Your task to perform on an android device: Go to internet settings Image 0: 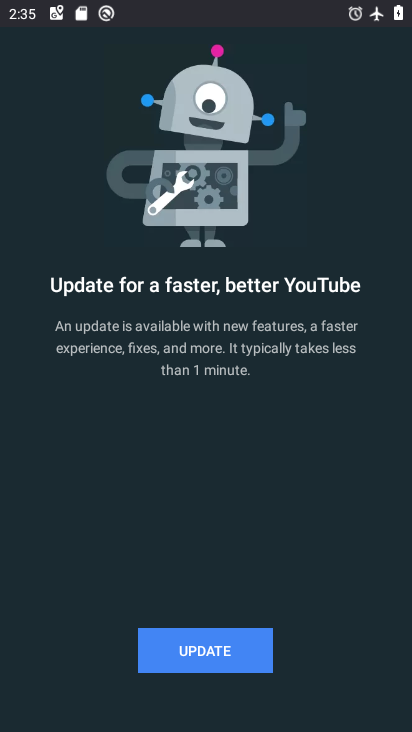
Step 0: press home button
Your task to perform on an android device: Go to internet settings Image 1: 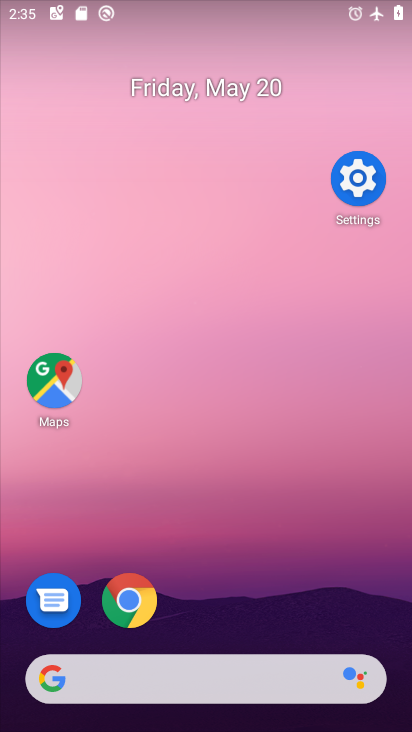
Step 1: drag from (242, 598) to (270, 38)
Your task to perform on an android device: Go to internet settings Image 2: 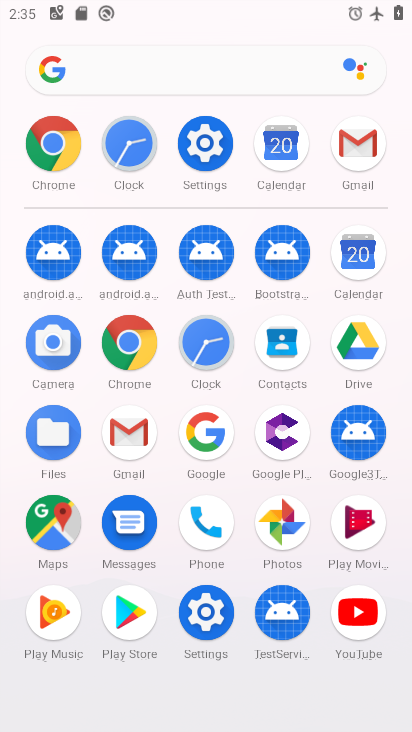
Step 2: click (198, 156)
Your task to perform on an android device: Go to internet settings Image 3: 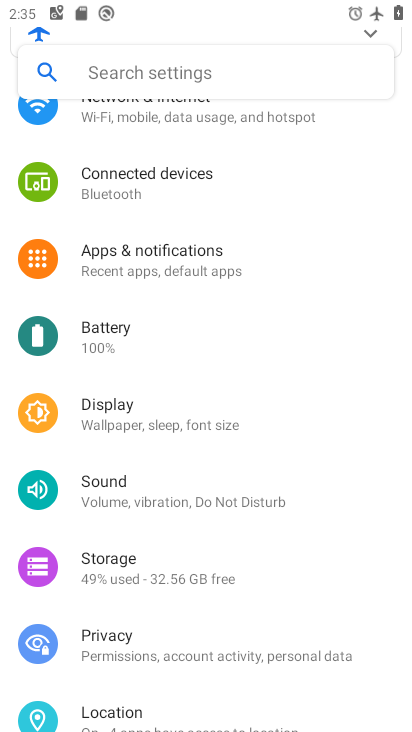
Step 3: click (190, 130)
Your task to perform on an android device: Go to internet settings Image 4: 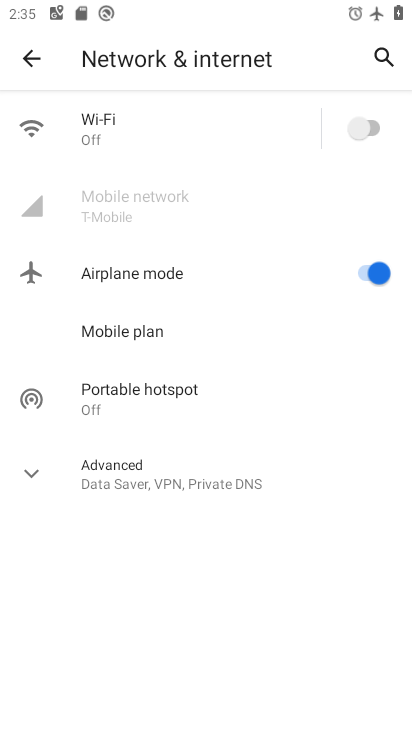
Step 4: task complete